Your task to perform on an android device: Clear all items from cart on costco. Add alienware area 51 to the cart on costco, then select checkout. Image 0: 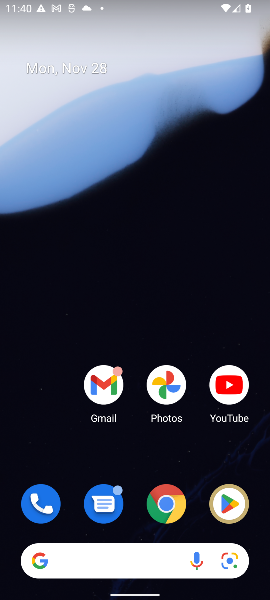
Step 0: click (172, 512)
Your task to perform on an android device: Clear all items from cart on costco. Add alienware area 51 to the cart on costco, then select checkout. Image 1: 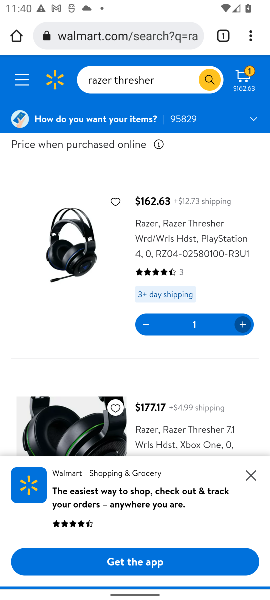
Step 1: click (138, 35)
Your task to perform on an android device: Clear all items from cart on costco. Add alienware area 51 to the cart on costco, then select checkout. Image 2: 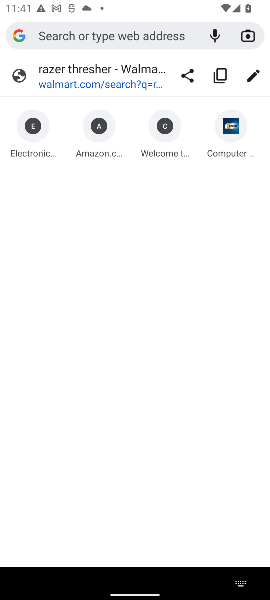
Step 2: type "costco.com"
Your task to perform on an android device: Clear all items from cart on costco. Add alienware area 51 to the cart on costco, then select checkout. Image 3: 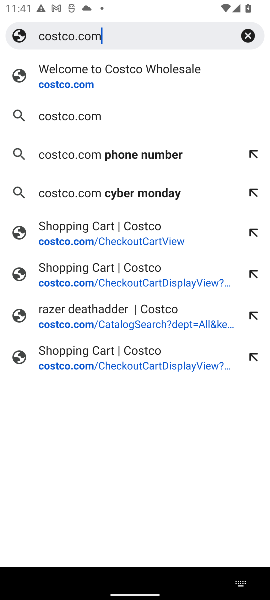
Step 3: click (60, 87)
Your task to perform on an android device: Clear all items from cart on costco. Add alienware area 51 to the cart on costco, then select checkout. Image 4: 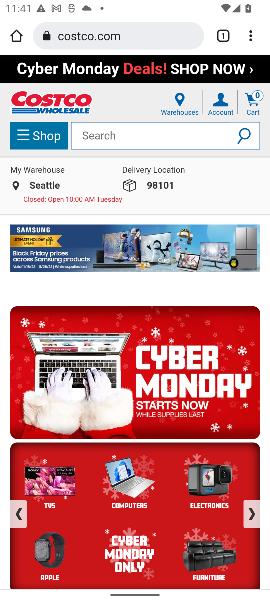
Step 4: click (251, 104)
Your task to perform on an android device: Clear all items from cart on costco. Add alienware area 51 to the cart on costco, then select checkout. Image 5: 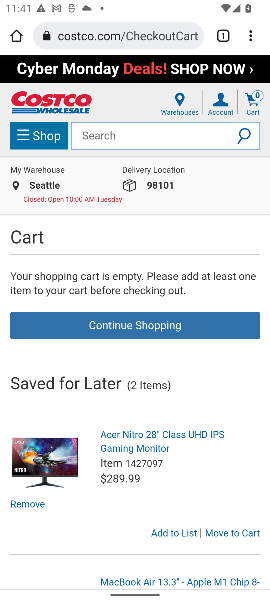
Step 5: click (94, 140)
Your task to perform on an android device: Clear all items from cart on costco. Add alienware area 51 to the cart on costco, then select checkout. Image 6: 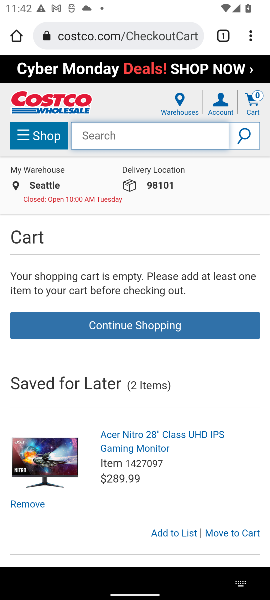
Step 6: type "alienware area 51"
Your task to perform on an android device: Clear all items from cart on costco. Add alienware area 51 to the cart on costco, then select checkout. Image 7: 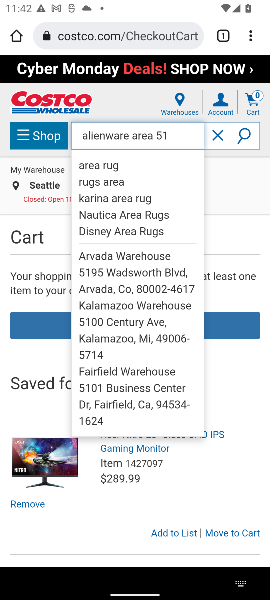
Step 7: click (245, 136)
Your task to perform on an android device: Clear all items from cart on costco. Add alienware area 51 to the cart on costco, then select checkout. Image 8: 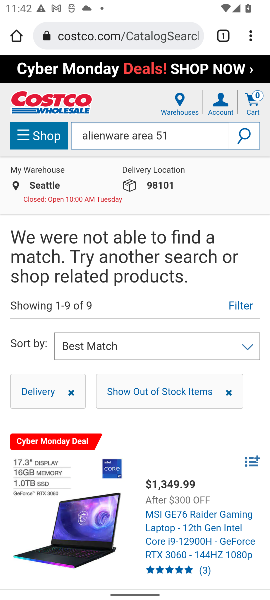
Step 8: task complete